Your task to perform on an android device: Turn off the flashlight Image 0: 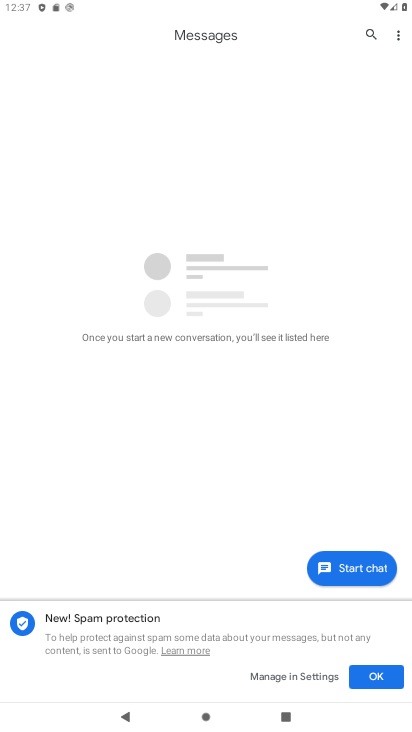
Step 0: press home button
Your task to perform on an android device: Turn off the flashlight Image 1: 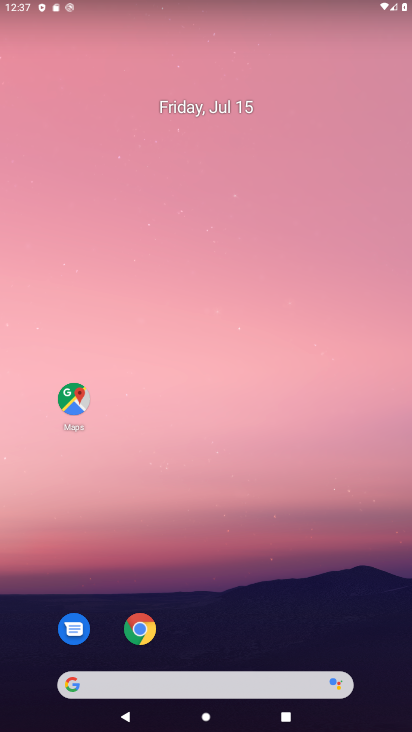
Step 1: drag from (271, 547) to (254, 98)
Your task to perform on an android device: Turn off the flashlight Image 2: 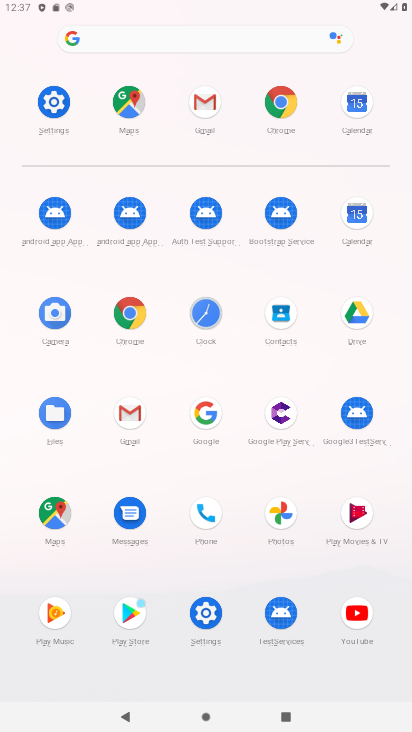
Step 2: click (54, 100)
Your task to perform on an android device: Turn off the flashlight Image 3: 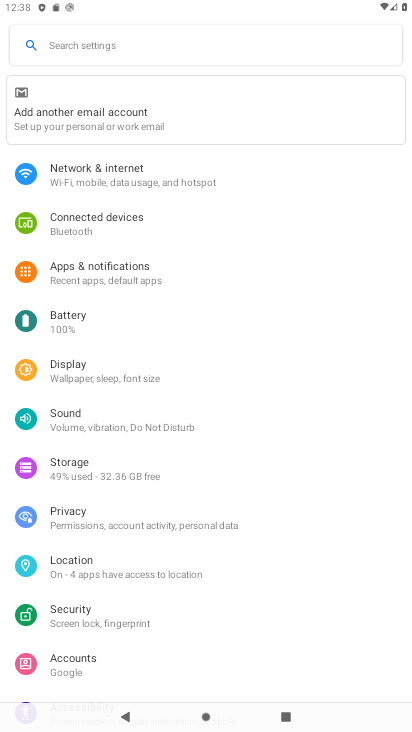
Step 3: click (109, 384)
Your task to perform on an android device: Turn off the flashlight Image 4: 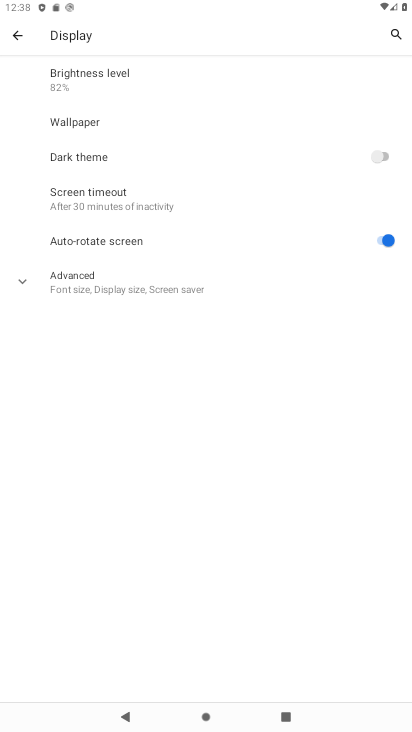
Step 4: click (124, 298)
Your task to perform on an android device: Turn off the flashlight Image 5: 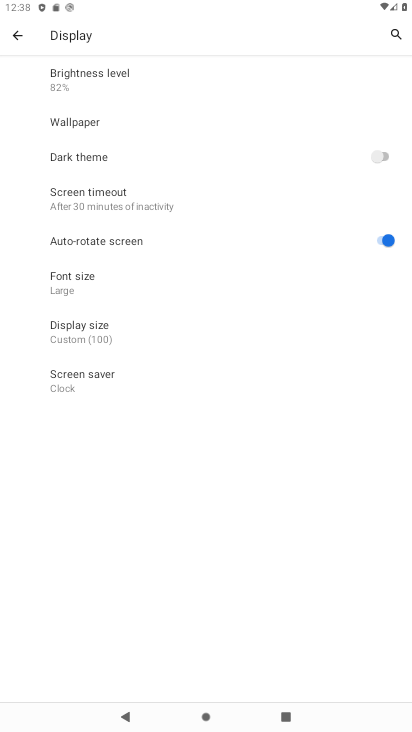
Step 5: task complete